Your task to perform on an android device: toggle javascript in the chrome app Image 0: 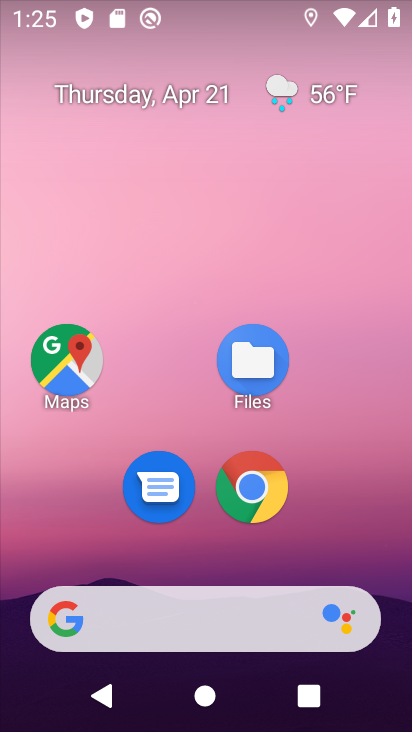
Step 0: drag from (346, 451) to (327, 69)
Your task to perform on an android device: toggle javascript in the chrome app Image 1: 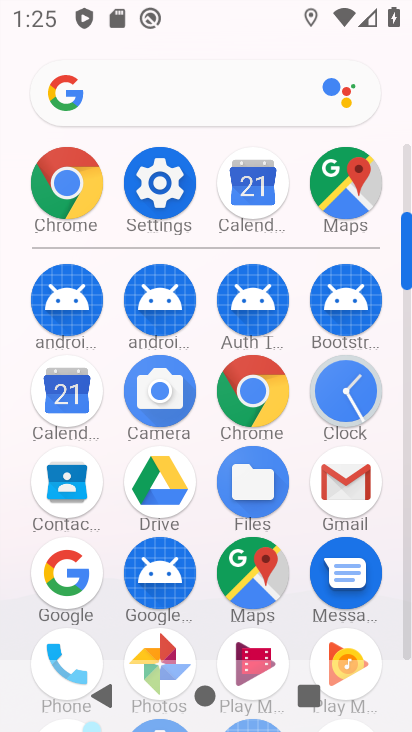
Step 1: click (246, 401)
Your task to perform on an android device: toggle javascript in the chrome app Image 2: 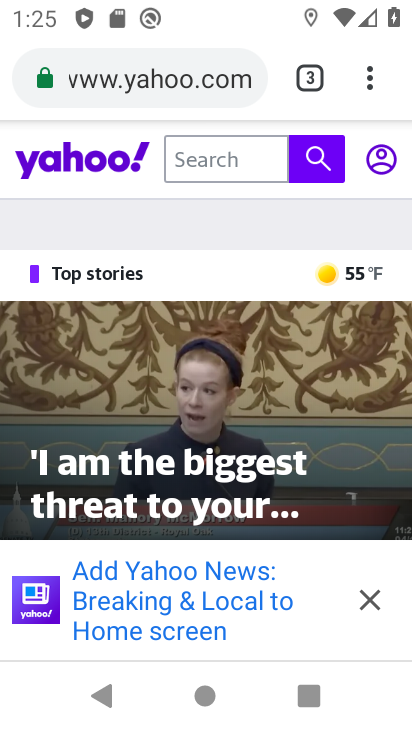
Step 2: drag from (373, 93) to (133, 557)
Your task to perform on an android device: toggle javascript in the chrome app Image 3: 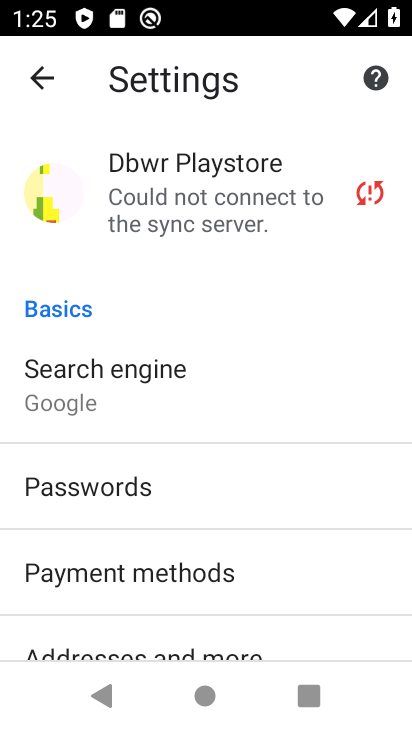
Step 3: drag from (299, 614) to (309, 355)
Your task to perform on an android device: toggle javascript in the chrome app Image 4: 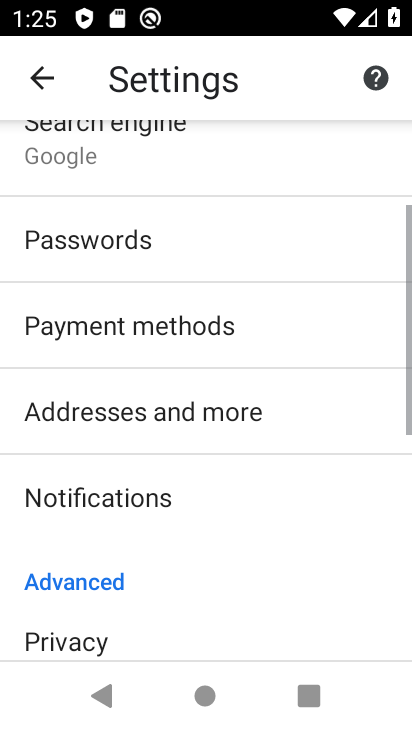
Step 4: drag from (309, 601) to (358, 390)
Your task to perform on an android device: toggle javascript in the chrome app Image 5: 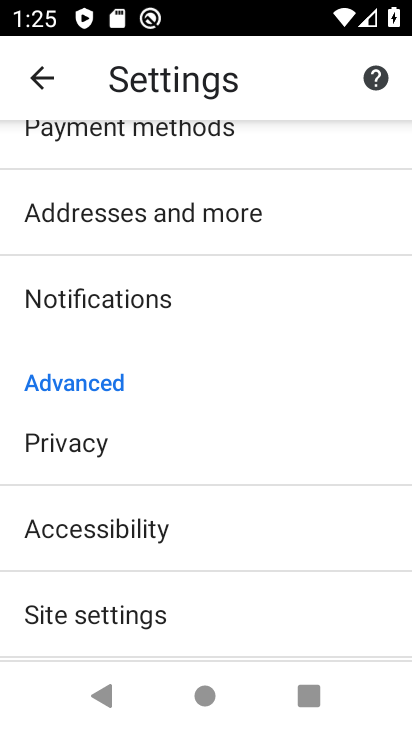
Step 5: drag from (303, 567) to (342, 292)
Your task to perform on an android device: toggle javascript in the chrome app Image 6: 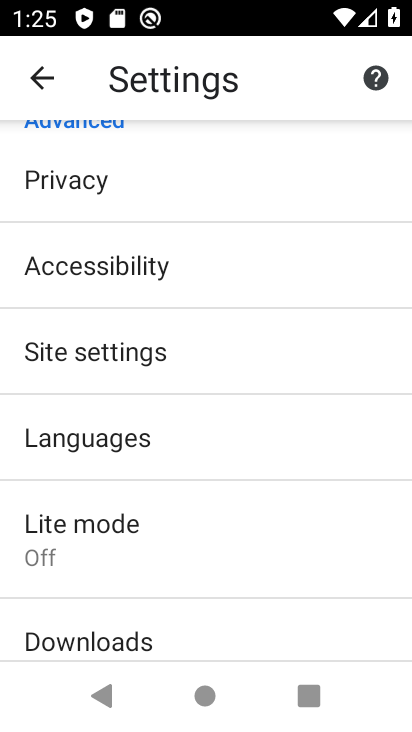
Step 6: drag from (288, 457) to (294, 264)
Your task to perform on an android device: toggle javascript in the chrome app Image 7: 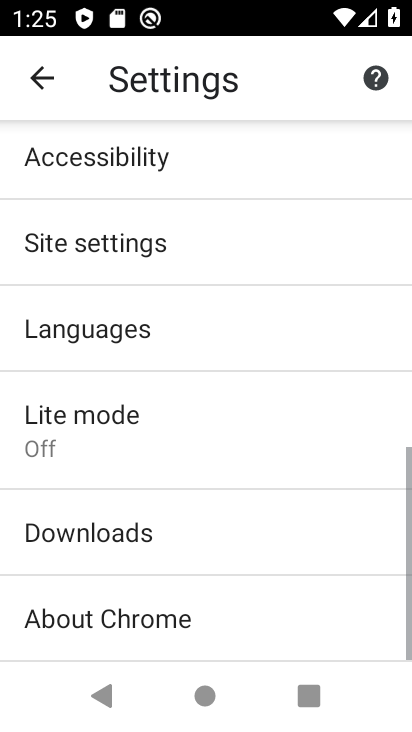
Step 7: click (220, 219)
Your task to perform on an android device: toggle javascript in the chrome app Image 8: 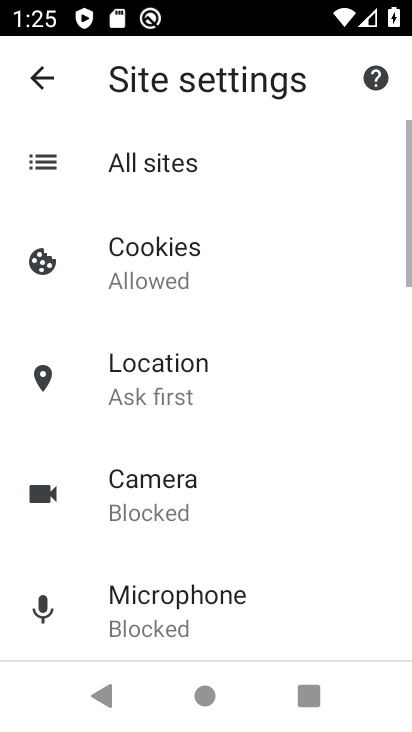
Step 8: drag from (263, 504) to (260, 240)
Your task to perform on an android device: toggle javascript in the chrome app Image 9: 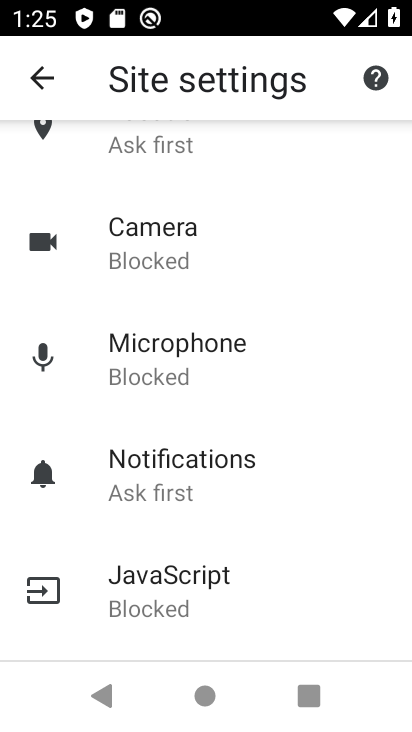
Step 9: click (188, 591)
Your task to perform on an android device: toggle javascript in the chrome app Image 10: 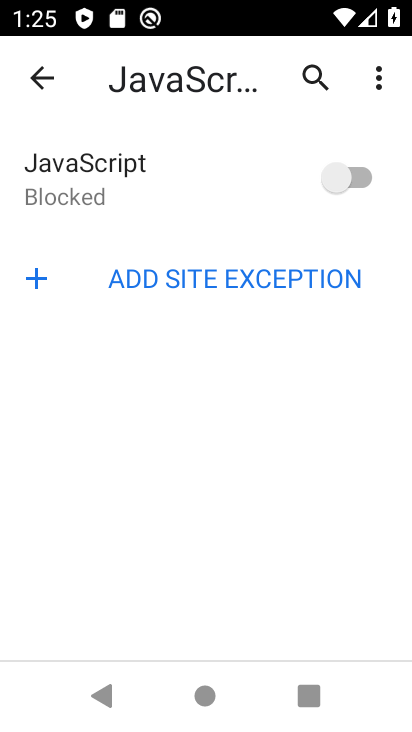
Step 10: click (354, 174)
Your task to perform on an android device: toggle javascript in the chrome app Image 11: 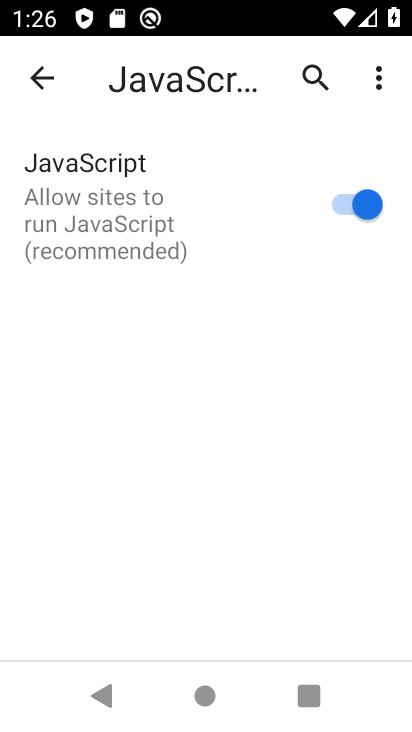
Step 11: task complete